Your task to perform on an android device: Go to Android settings Image 0: 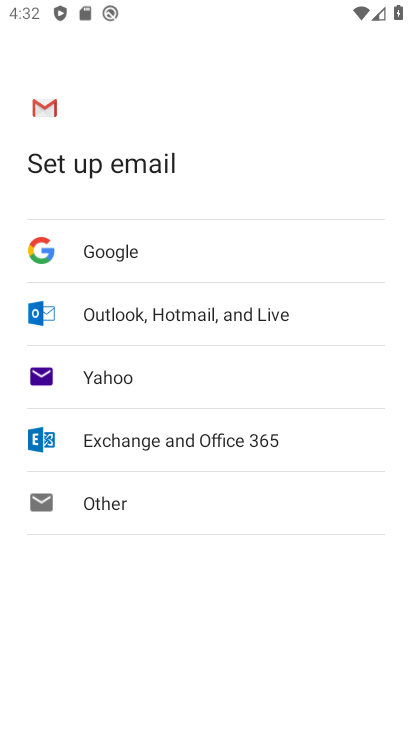
Step 0: press home button
Your task to perform on an android device: Go to Android settings Image 1: 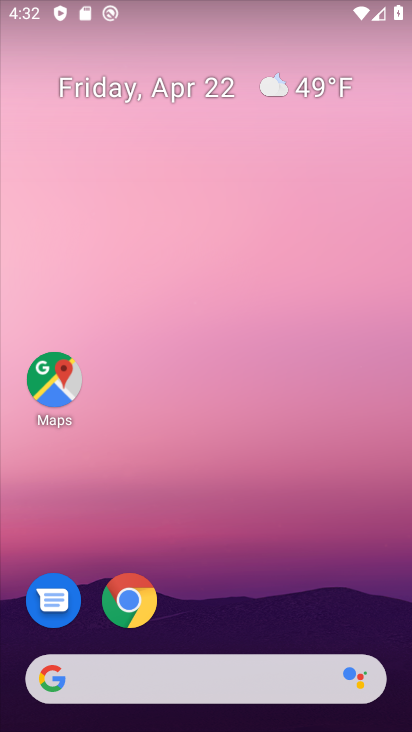
Step 1: drag from (225, 553) to (175, 49)
Your task to perform on an android device: Go to Android settings Image 2: 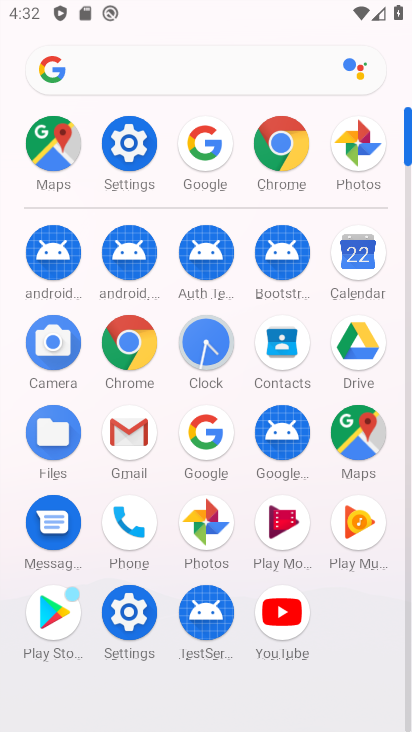
Step 2: click (128, 143)
Your task to perform on an android device: Go to Android settings Image 3: 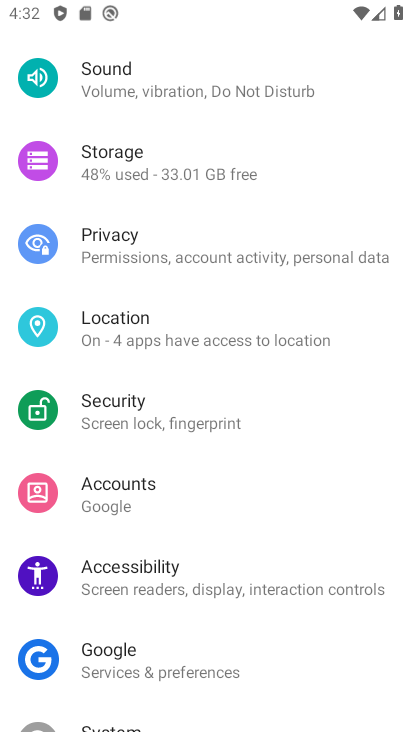
Step 3: task complete